Your task to perform on an android device: turn on javascript in the chrome app Image 0: 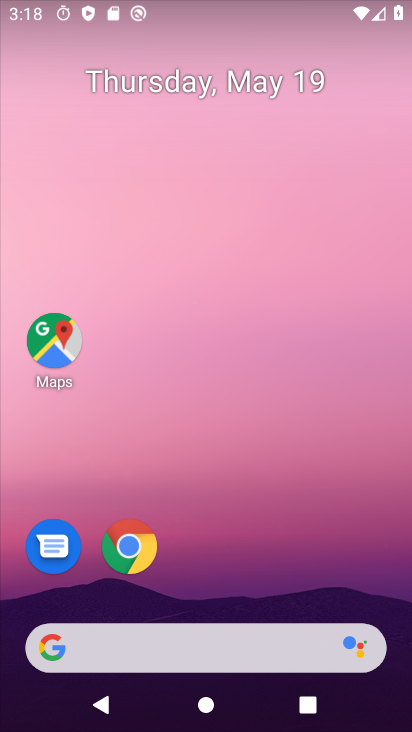
Step 0: click (129, 538)
Your task to perform on an android device: turn on javascript in the chrome app Image 1: 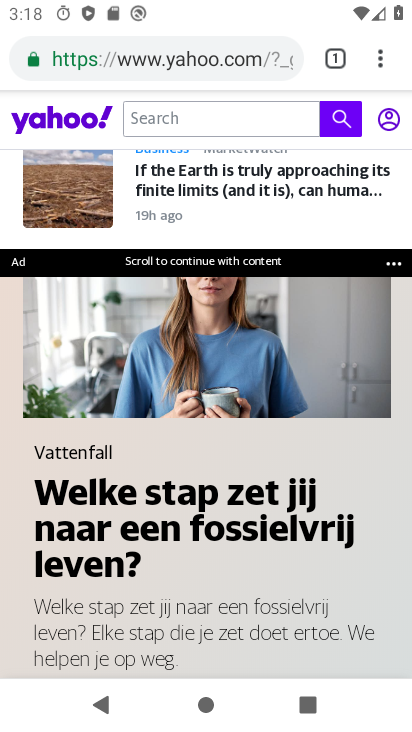
Step 1: click (385, 41)
Your task to perform on an android device: turn on javascript in the chrome app Image 2: 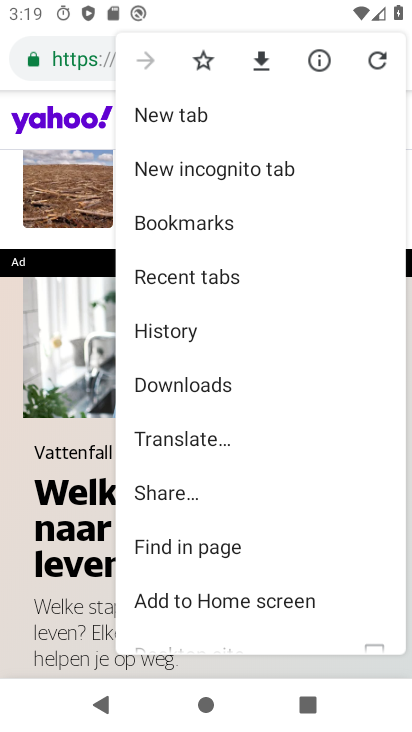
Step 2: drag from (261, 570) to (293, 159)
Your task to perform on an android device: turn on javascript in the chrome app Image 3: 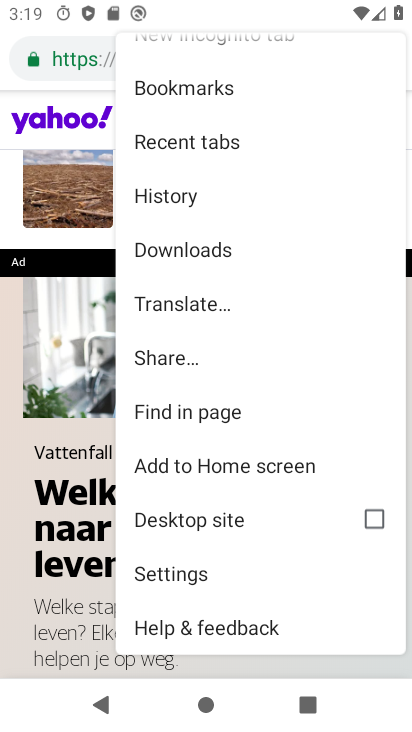
Step 3: click (206, 565)
Your task to perform on an android device: turn on javascript in the chrome app Image 4: 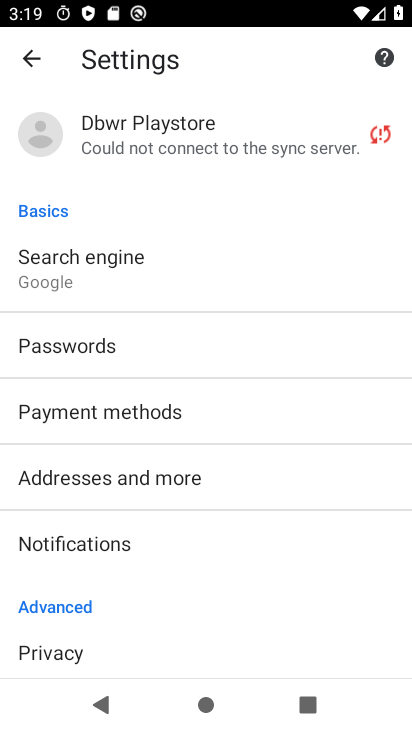
Step 4: drag from (190, 615) to (229, 152)
Your task to perform on an android device: turn on javascript in the chrome app Image 5: 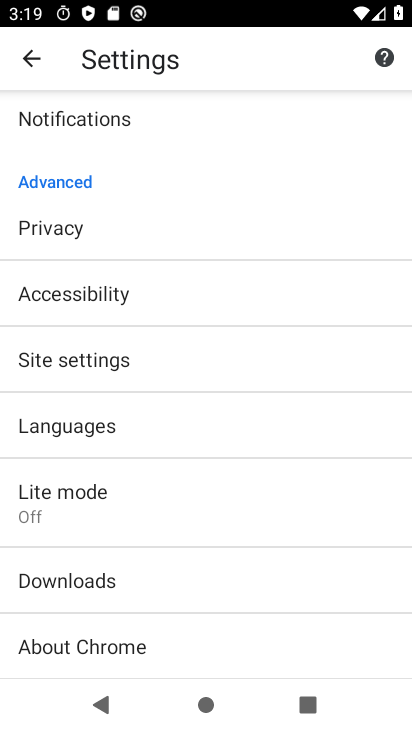
Step 5: click (145, 351)
Your task to perform on an android device: turn on javascript in the chrome app Image 6: 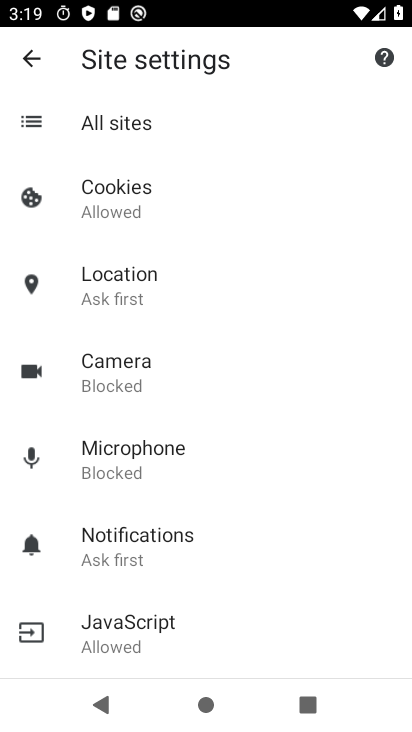
Step 6: click (182, 645)
Your task to perform on an android device: turn on javascript in the chrome app Image 7: 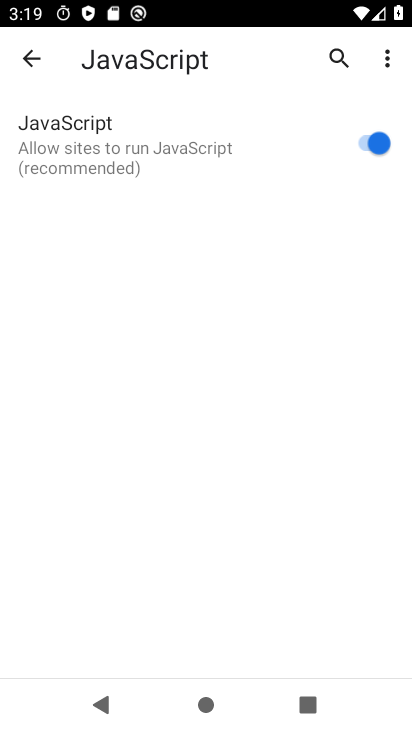
Step 7: task complete